Your task to perform on an android device: Open the phone app and click the voicemail tab. Image 0: 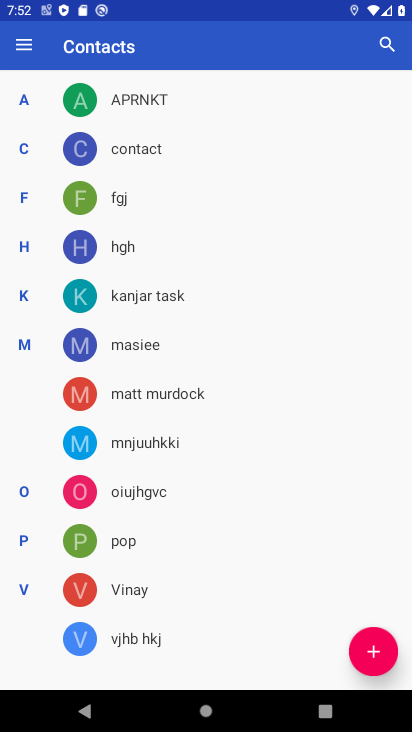
Step 0: press home button
Your task to perform on an android device: Open the phone app and click the voicemail tab. Image 1: 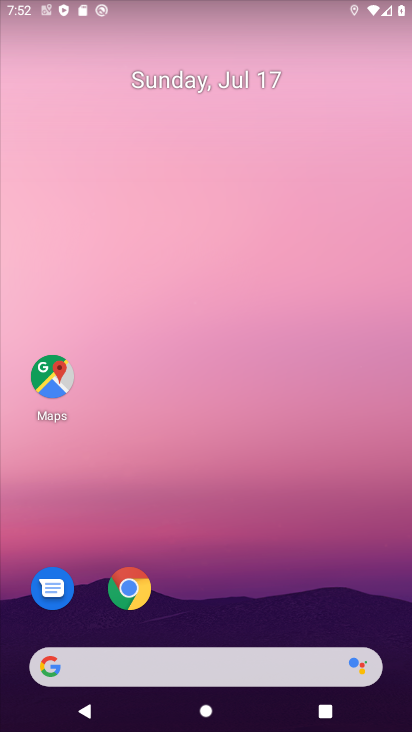
Step 1: drag from (193, 696) to (263, 151)
Your task to perform on an android device: Open the phone app and click the voicemail tab. Image 2: 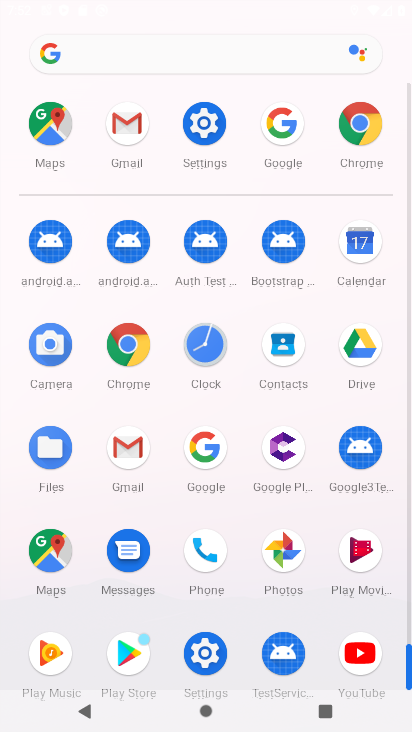
Step 2: click (218, 562)
Your task to perform on an android device: Open the phone app and click the voicemail tab. Image 3: 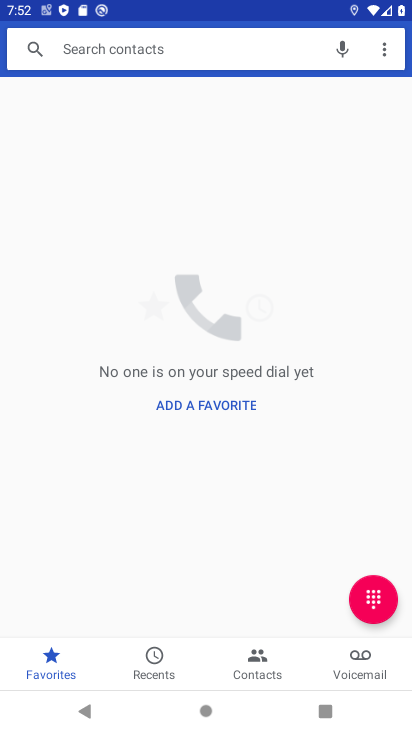
Step 3: click (378, 671)
Your task to perform on an android device: Open the phone app and click the voicemail tab. Image 4: 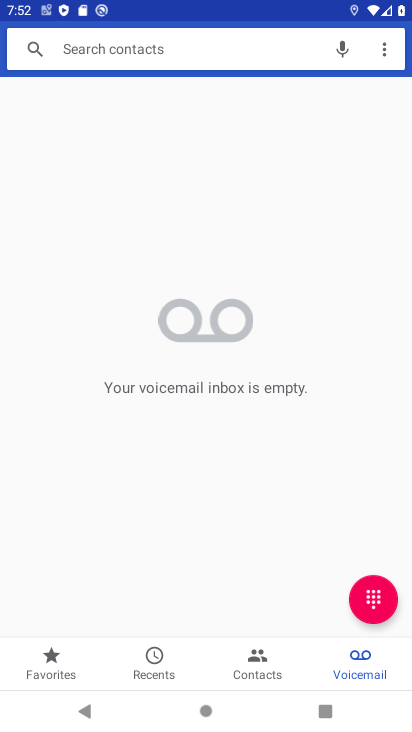
Step 4: task complete